Your task to perform on an android device: Go to wifi settings Image 0: 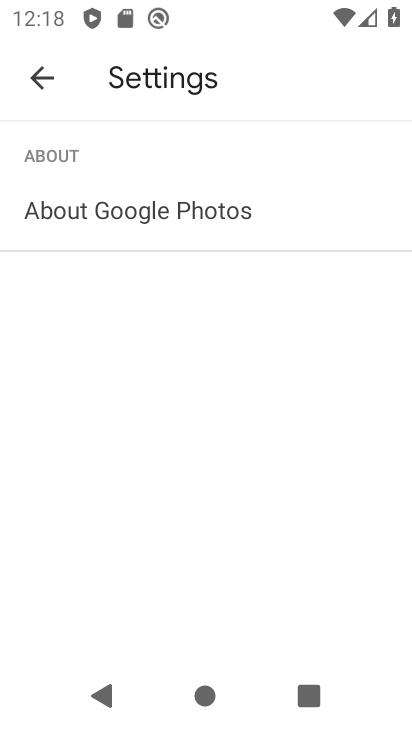
Step 0: press home button
Your task to perform on an android device: Go to wifi settings Image 1: 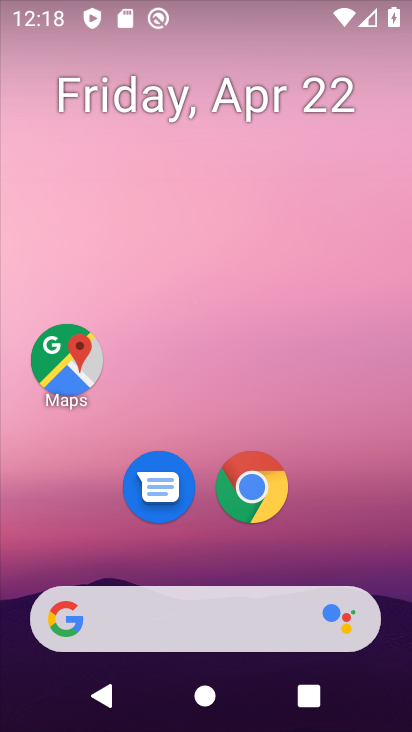
Step 1: drag from (209, 553) to (237, 48)
Your task to perform on an android device: Go to wifi settings Image 2: 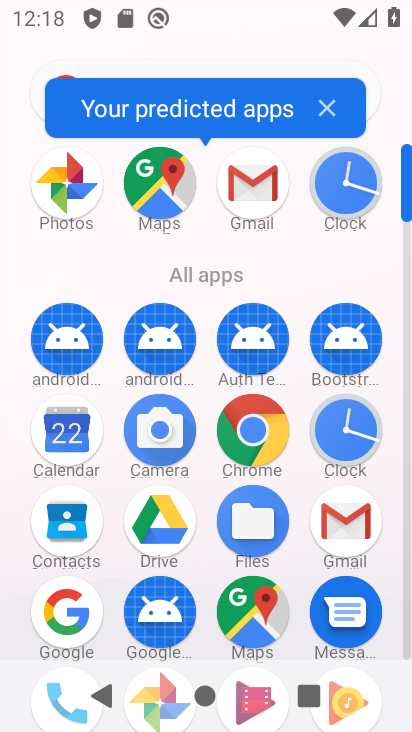
Step 2: drag from (115, 503) to (137, 219)
Your task to perform on an android device: Go to wifi settings Image 3: 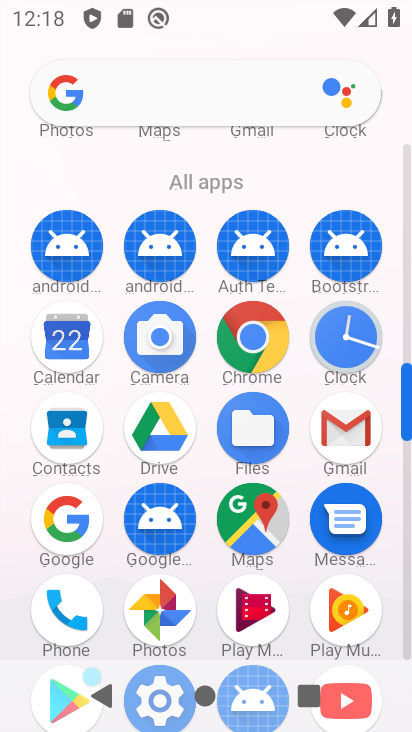
Step 3: drag from (106, 458) to (133, 314)
Your task to perform on an android device: Go to wifi settings Image 4: 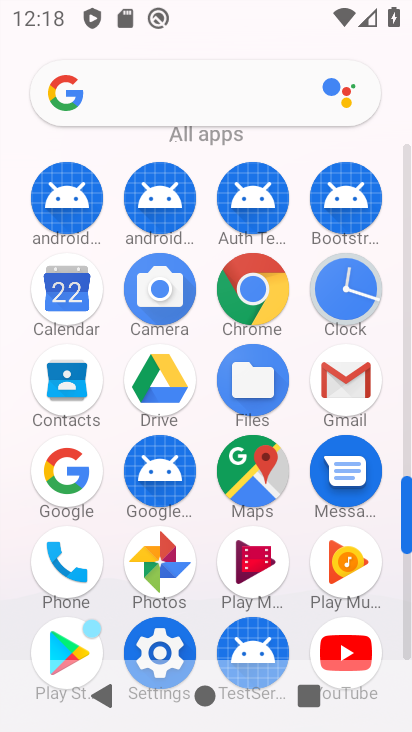
Step 4: click (163, 632)
Your task to perform on an android device: Go to wifi settings Image 5: 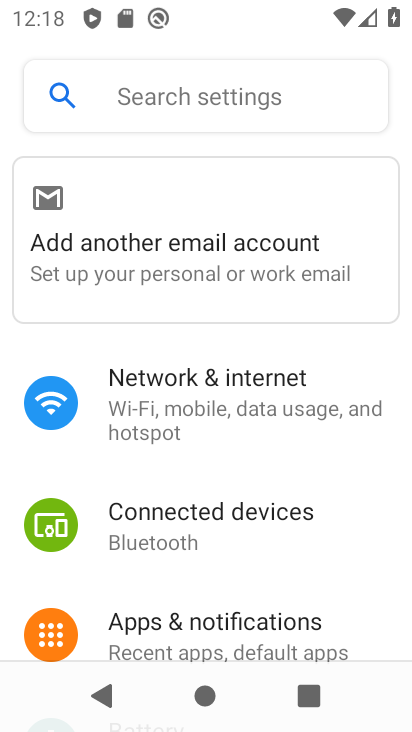
Step 5: click (197, 386)
Your task to perform on an android device: Go to wifi settings Image 6: 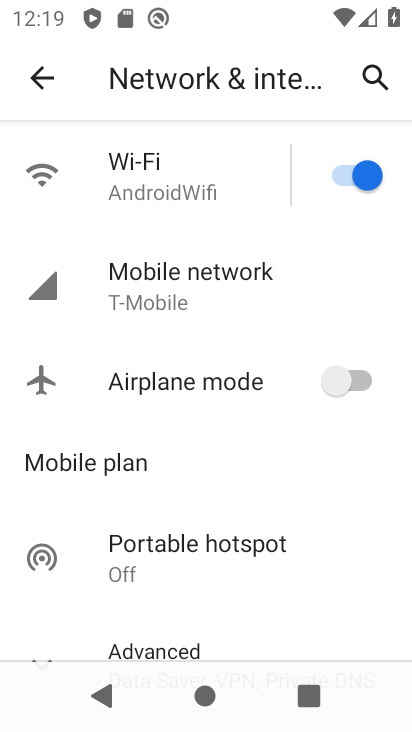
Step 6: click (55, 177)
Your task to perform on an android device: Go to wifi settings Image 7: 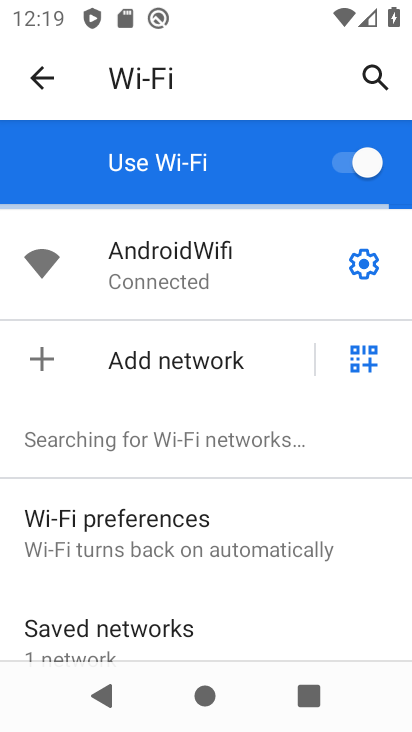
Step 7: task complete